Your task to perform on an android device: Check the weather Image 0: 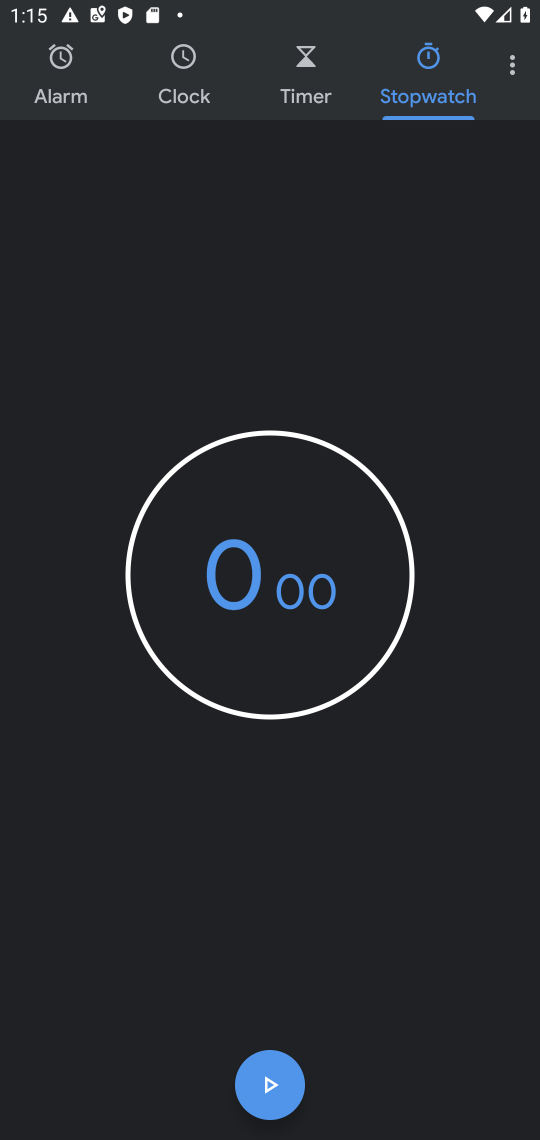
Step 0: press home button
Your task to perform on an android device: Check the weather Image 1: 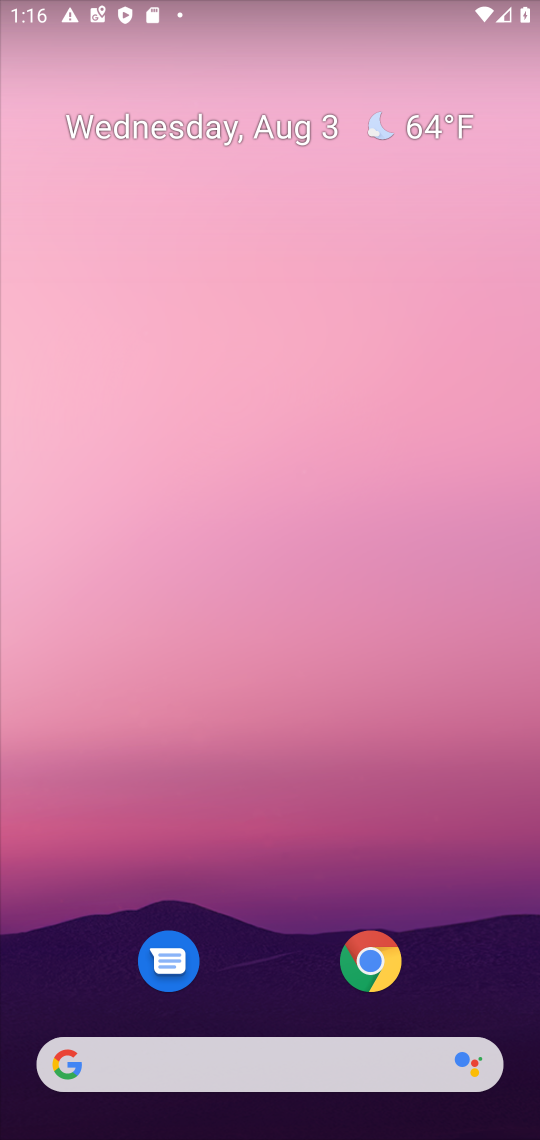
Step 1: click (276, 1061)
Your task to perform on an android device: Check the weather Image 2: 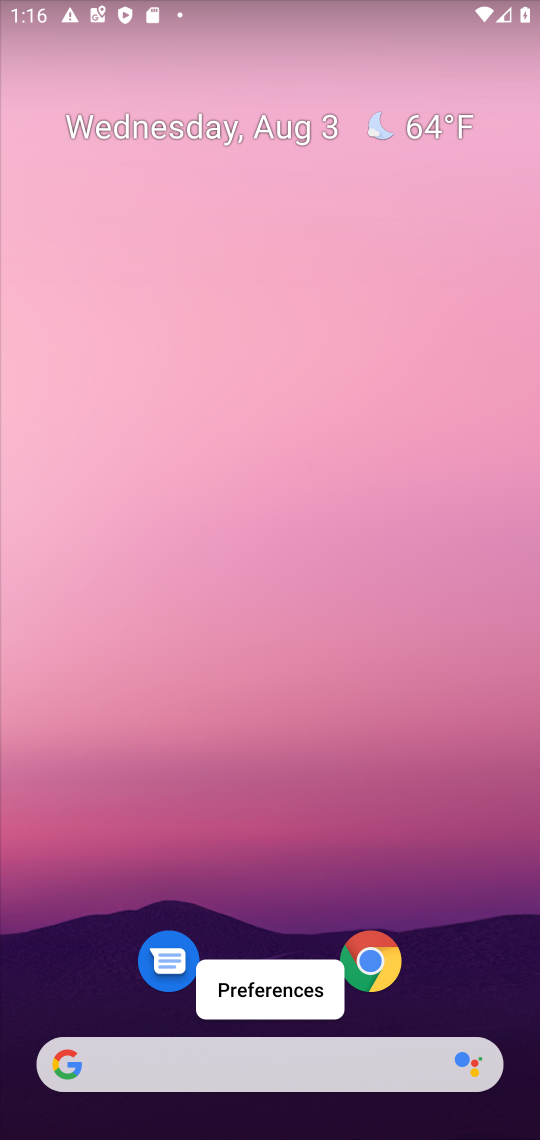
Step 2: click (211, 1073)
Your task to perform on an android device: Check the weather Image 3: 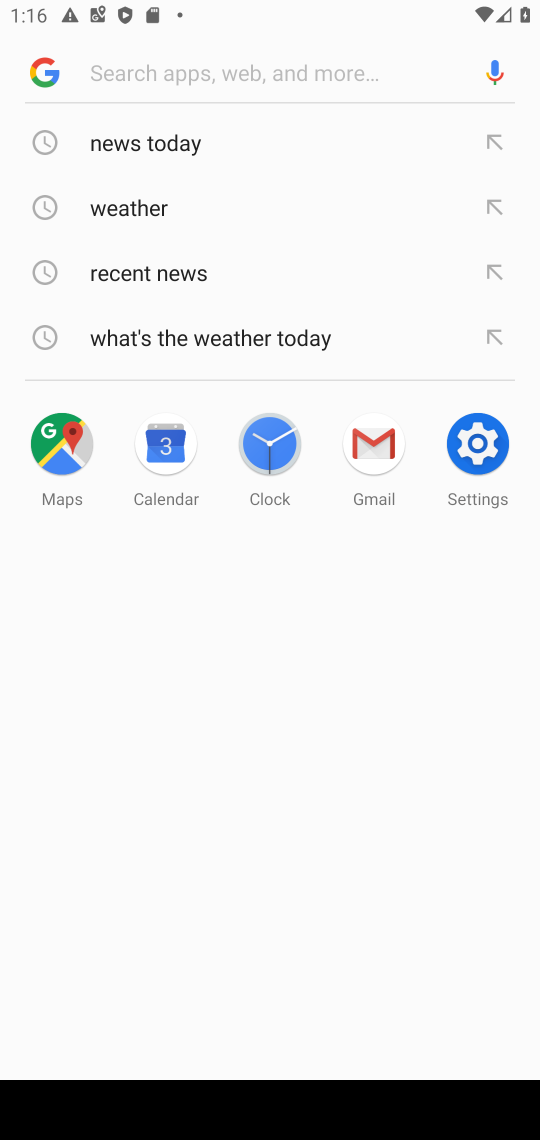
Step 3: click (142, 219)
Your task to perform on an android device: Check the weather Image 4: 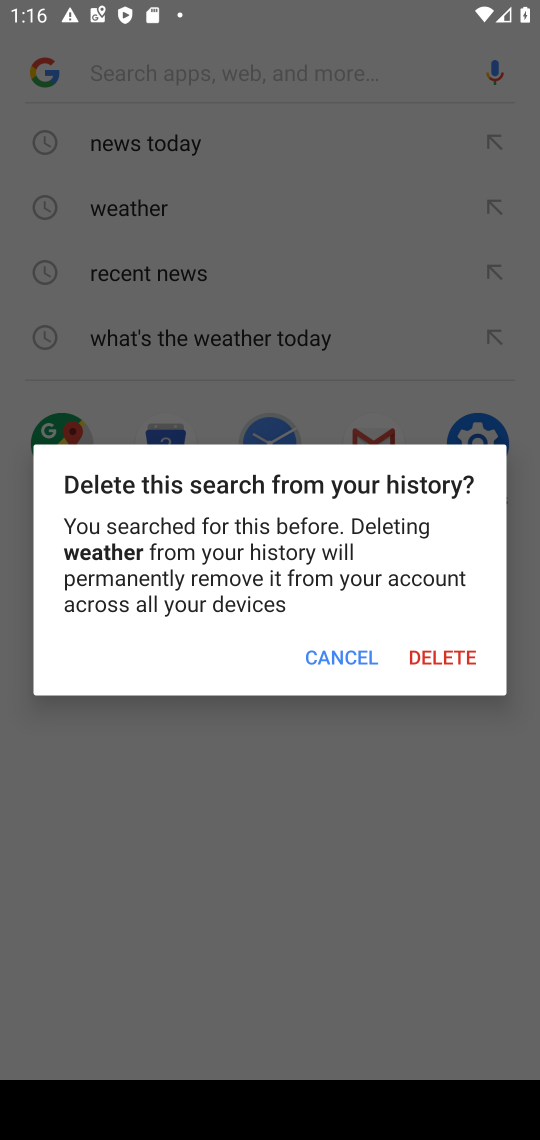
Step 4: click (125, 213)
Your task to perform on an android device: Check the weather Image 5: 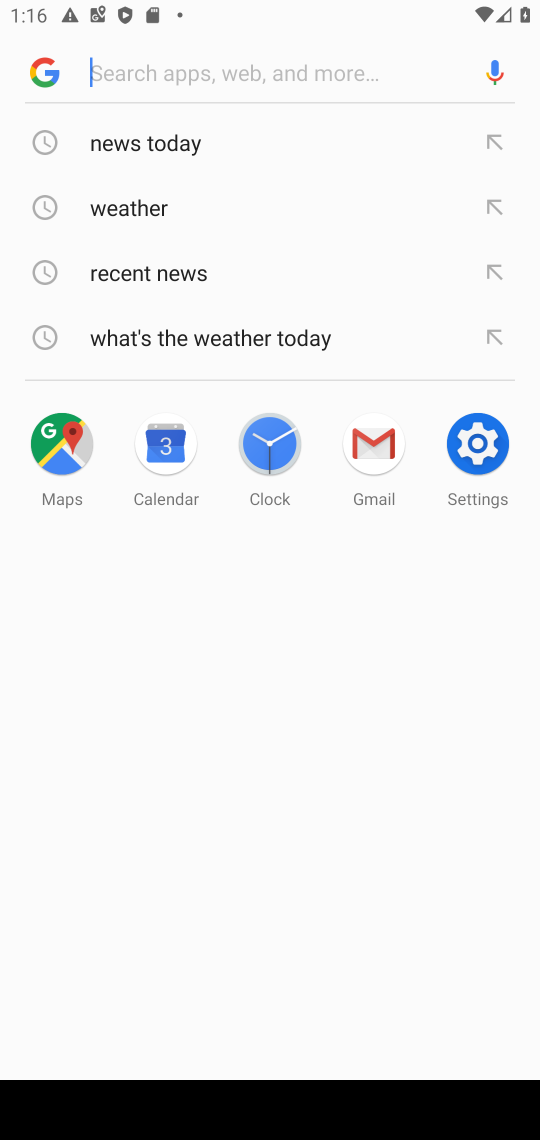
Step 5: click (145, 218)
Your task to perform on an android device: Check the weather Image 6: 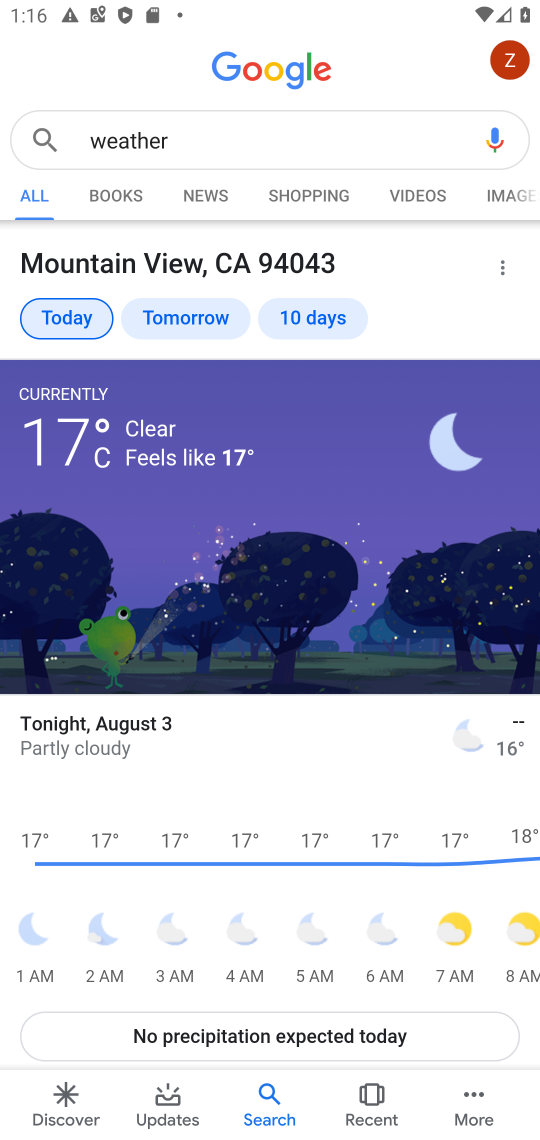
Step 6: task complete